Your task to perform on an android device: choose inbox layout in the gmail app Image 0: 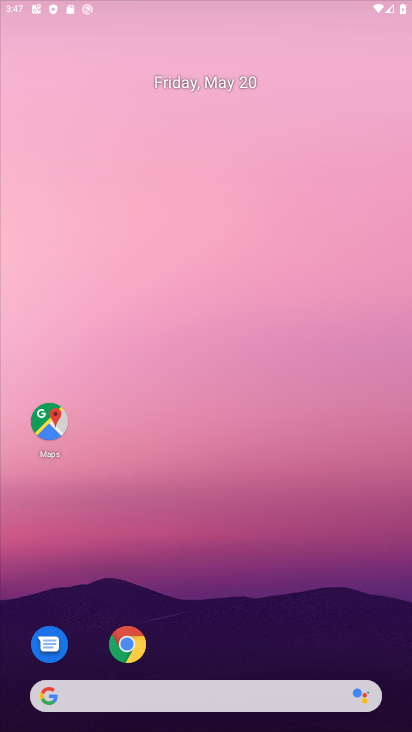
Step 0: drag from (343, 575) to (382, 141)
Your task to perform on an android device: choose inbox layout in the gmail app Image 1: 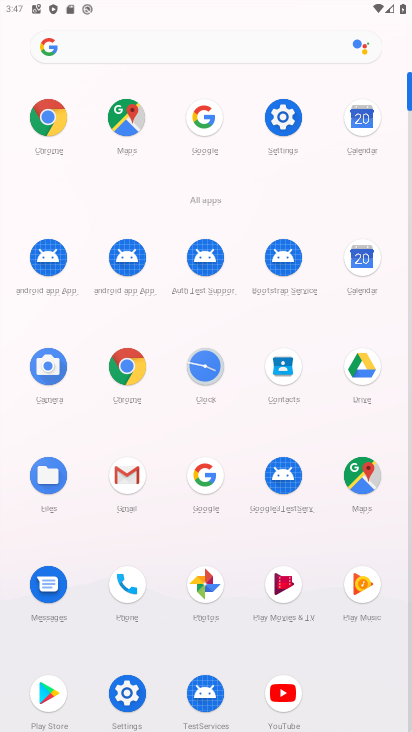
Step 1: click (133, 490)
Your task to perform on an android device: choose inbox layout in the gmail app Image 2: 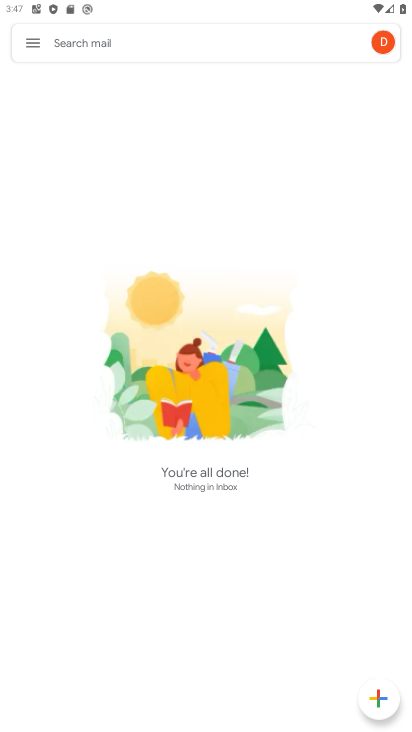
Step 2: click (33, 41)
Your task to perform on an android device: choose inbox layout in the gmail app Image 3: 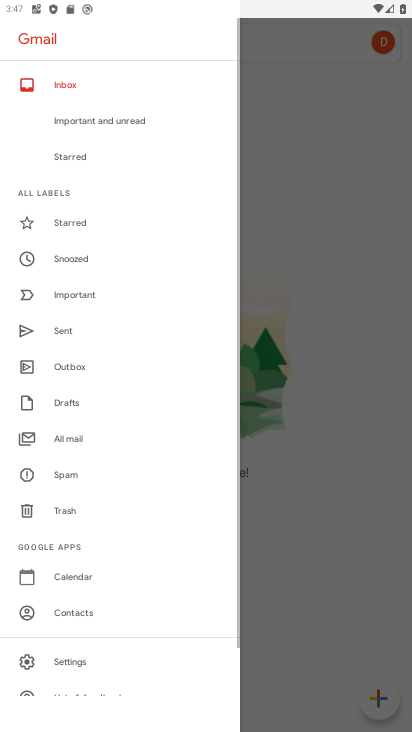
Step 3: click (79, 89)
Your task to perform on an android device: choose inbox layout in the gmail app Image 4: 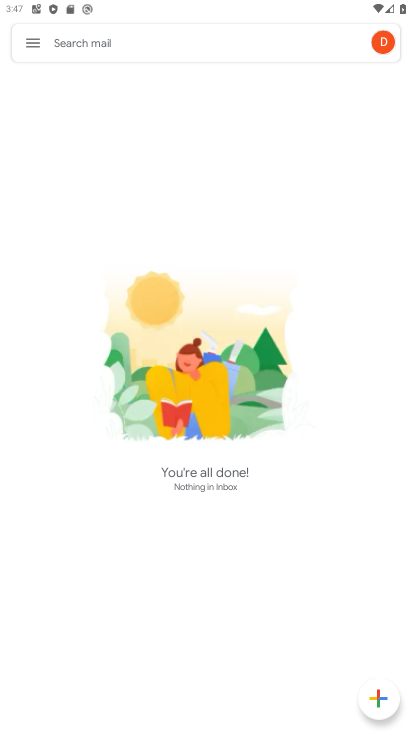
Step 4: task complete